Your task to perform on an android device: Search for the best books on Goodreads. Image 0: 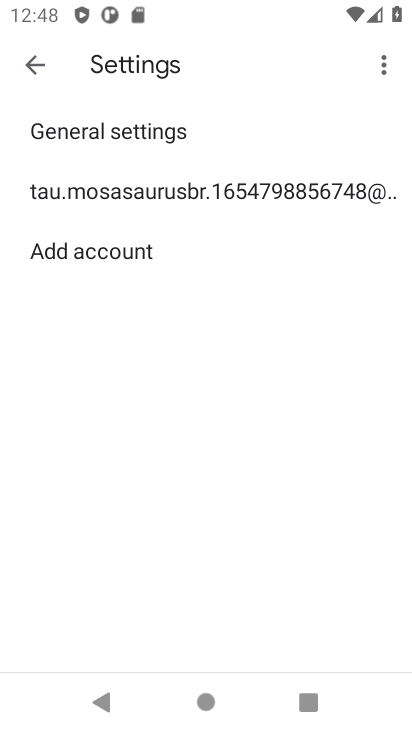
Step 0: press home button
Your task to perform on an android device: Search for the best books on Goodreads. Image 1: 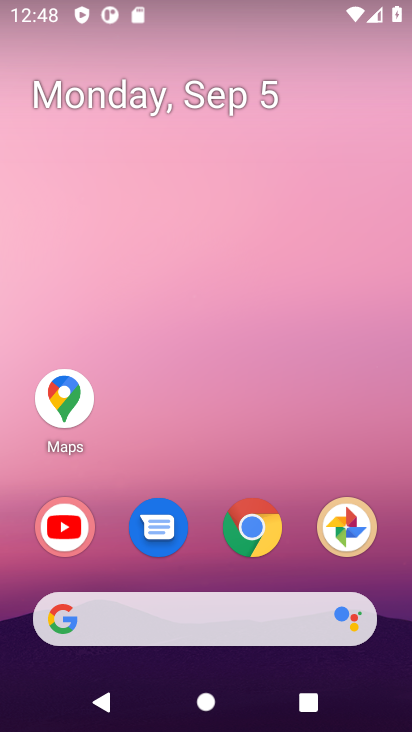
Step 1: click (252, 536)
Your task to perform on an android device: Search for the best books on Goodreads. Image 2: 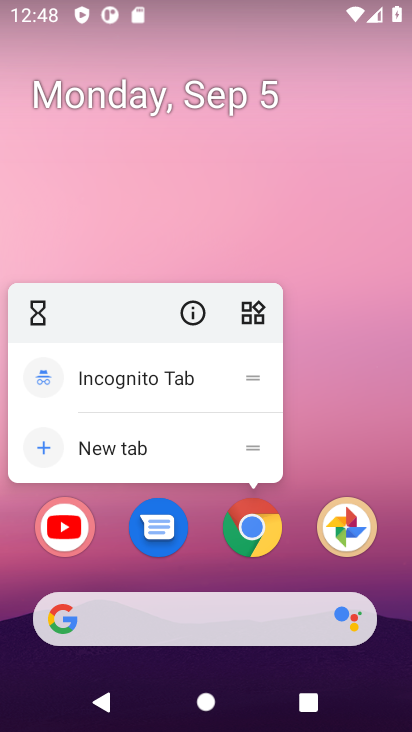
Step 2: click (254, 539)
Your task to perform on an android device: Search for the best books on Goodreads. Image 3: 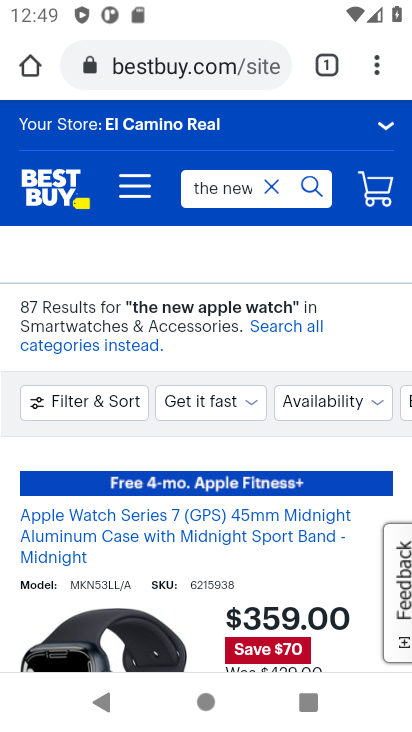
Step 3: click (206, 64)
Your task to perform on an android device: Search for the best books on Goodreads. Image 4: 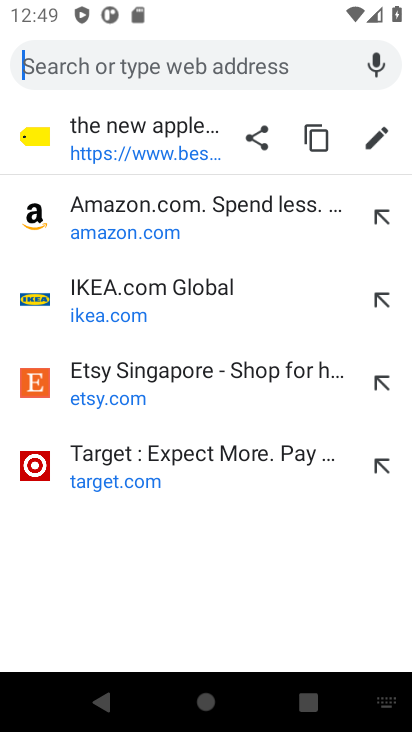
Step 4: type "goodreads"
Your task to perform on an android device: Search for the best books on Goodreads. Image 5: 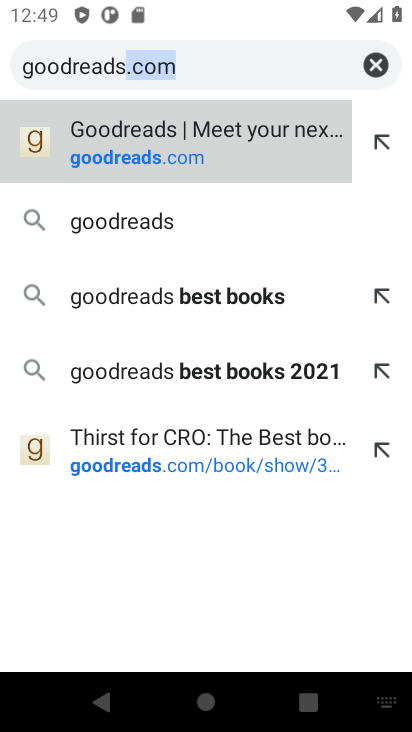
Step 5: click (141, 158)
Your task to perform on an android device: Search for the best books on Goodreads. Image 6: 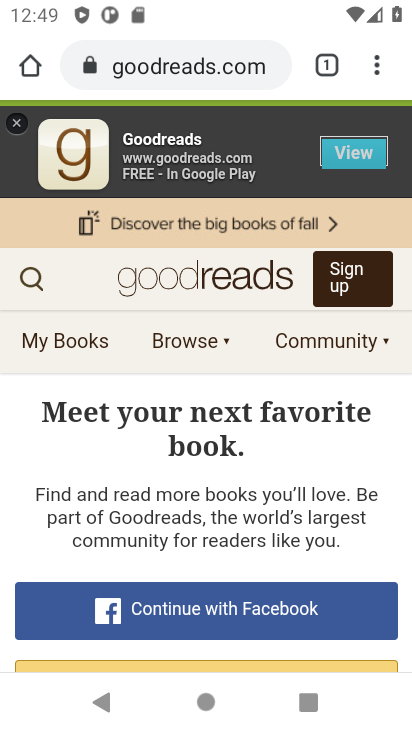
Step 6: click (31, 279)
Your task to perform on an android device: Search for the best books on Goodreads. Image 7: 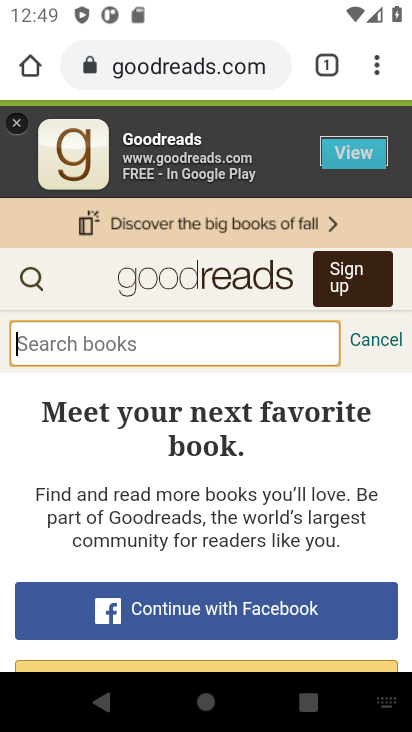
Step 7: type "the best books"
Your task to perform on an android device: Search for the best books on Goodreads. Image 8: 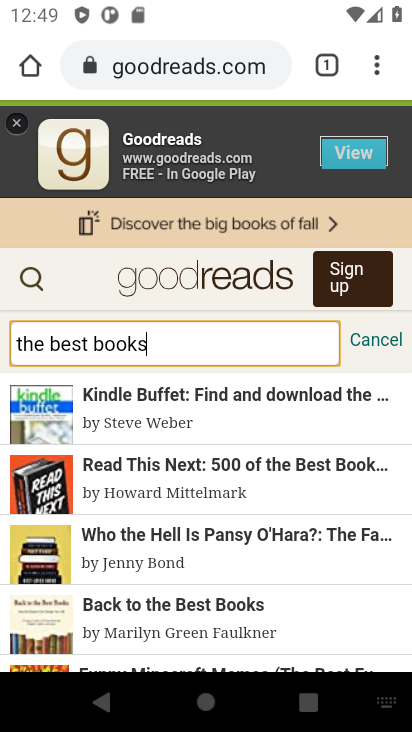
Step 8: task complete